Your task to perform on an android device: turn on translation in the chrome app Image 0: 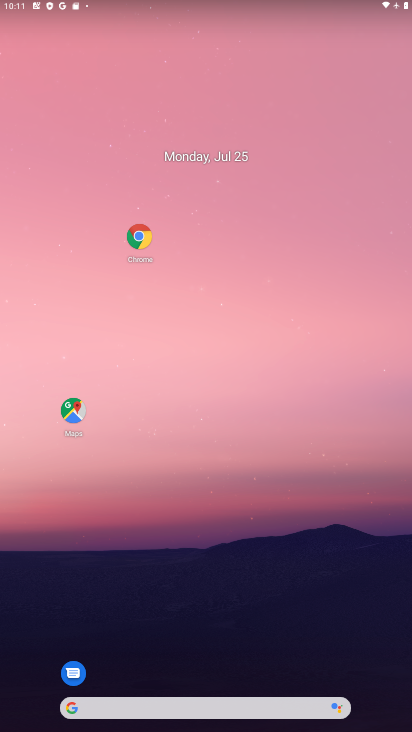
Step 0: click (127, 245)
Your task to perform on an android device: turn on translation in the chrome app Image 1: 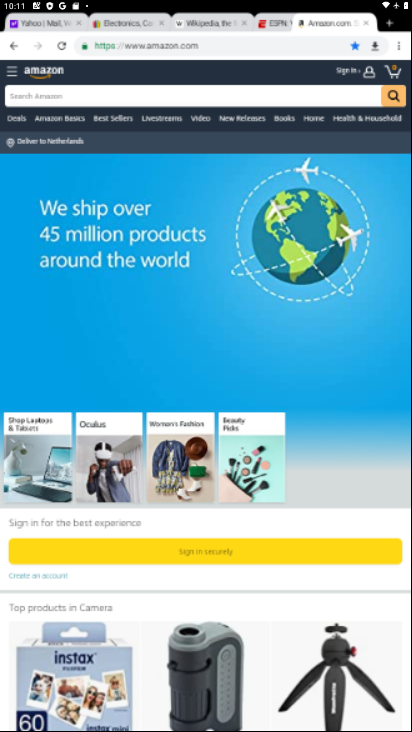
Step 1: task complete